Your task to perform on an android device: Open location settings Image 0: 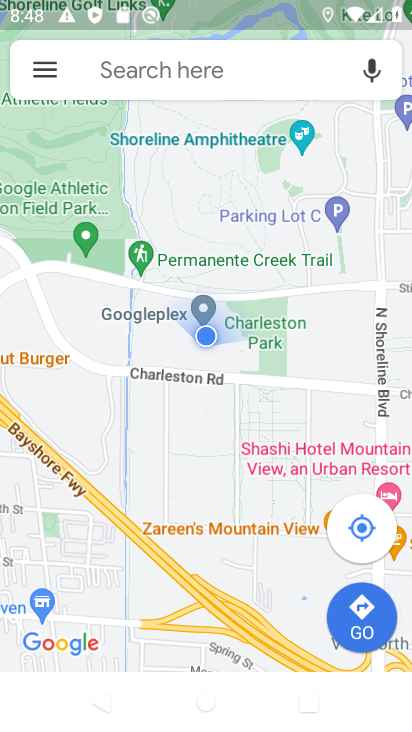
Step 0: click (38, 70)
Your task to perform on an android device: Open location settings Image 1: 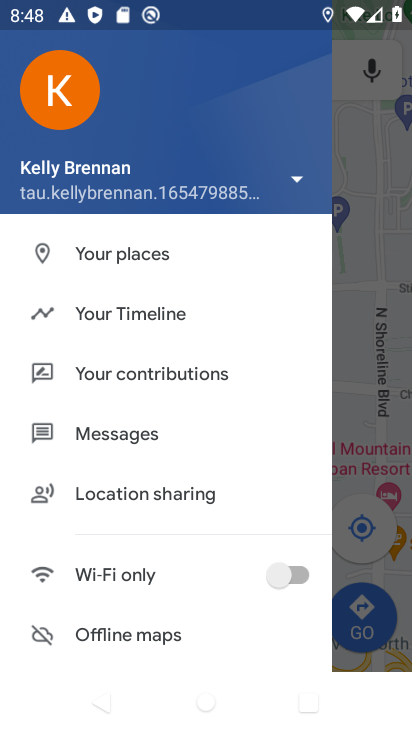
Step 1: task complete